Your task to perform on an android device: open device folders in google photos Image 0: 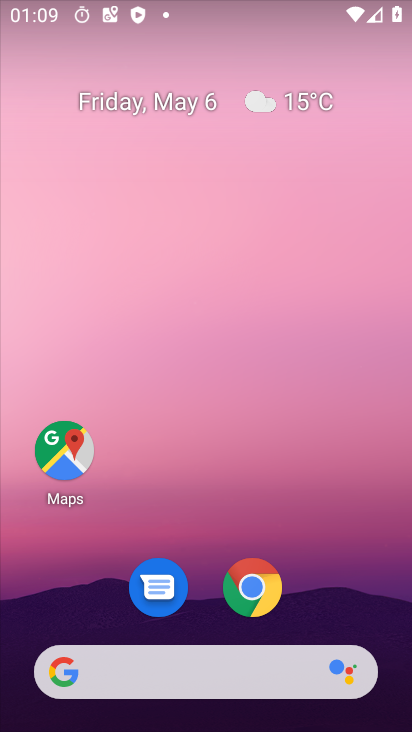
Step 0: drag from (329, 301) to (327, 232)
Your task to perform on an android device: open device folders in google photos Image 1: 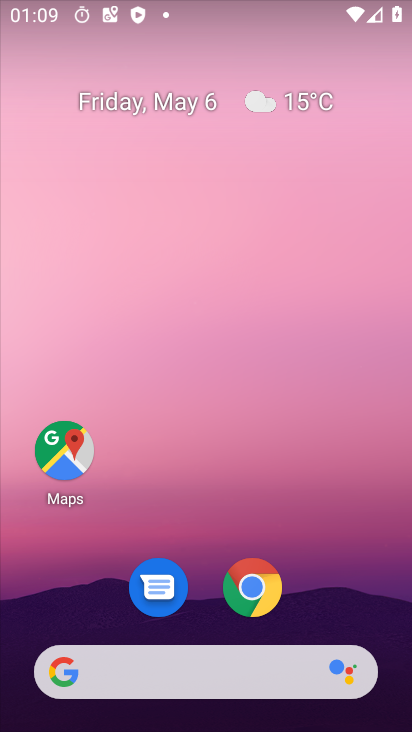
Step 1: drag from (390, 652) to (355, 242)
Your task to perform on an android device: open device folders in google photos Image 2: 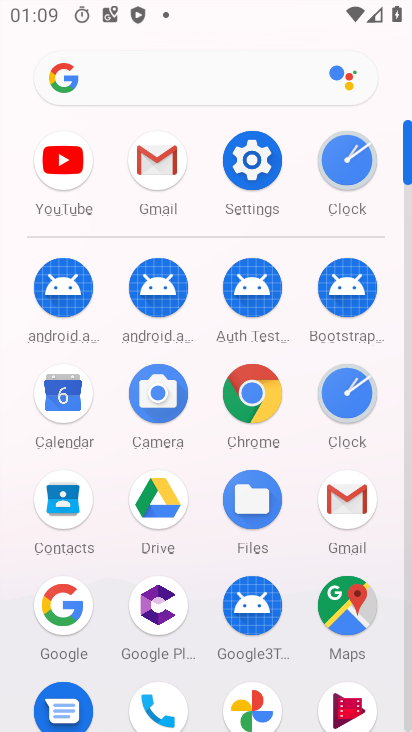
Step 2: click (243, 695)
Your task to perform on an android device: open device folders in google photos Image 3: 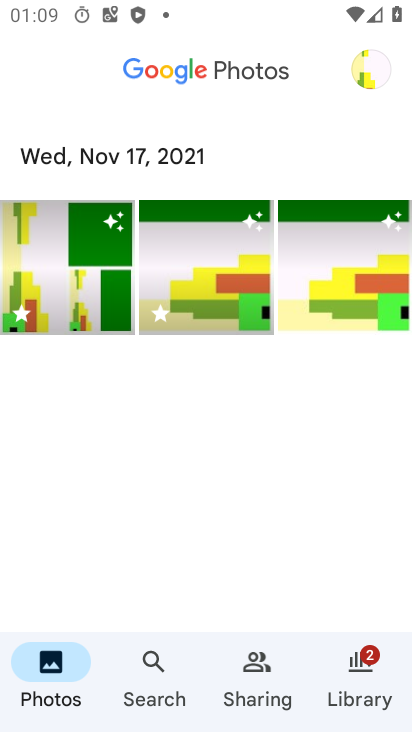
Step 3: click (374, 74)
Your task to perform on an android device: open device folders in google photos Image 4: 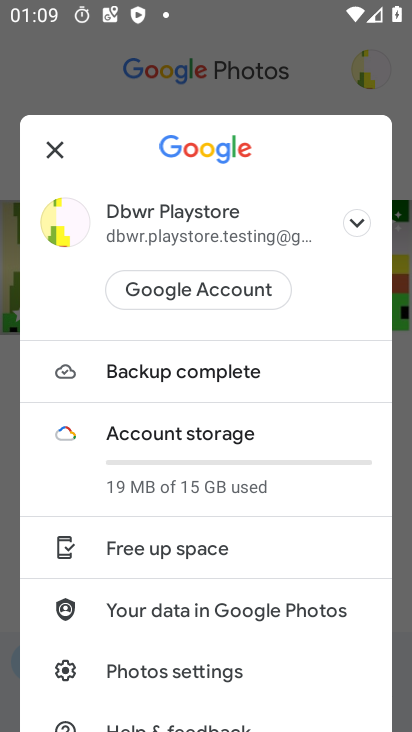
Step 4: click (260, 345)
Your task to perform on an android device: open device folders in google photos Image 5: 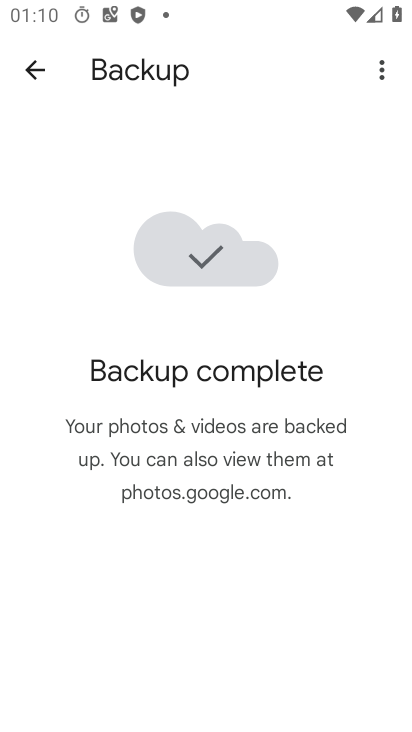
Step 5: task complete